Your task to perform on an android device: Open settings Image 0: 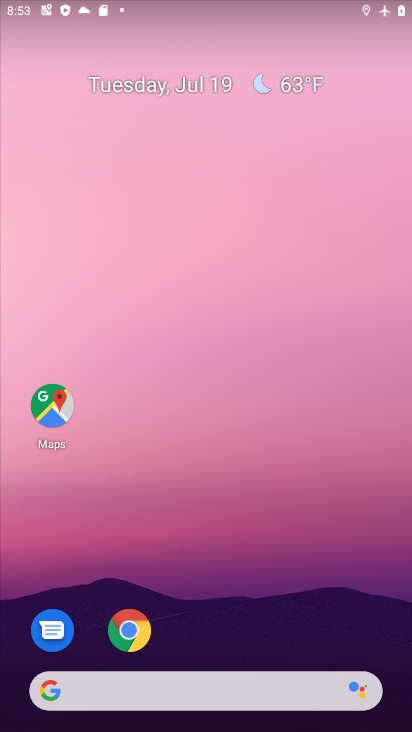
Step 0: drag from (186, 693) to (330, 93)
Your task to perform on an android device: Open settings Image 1: 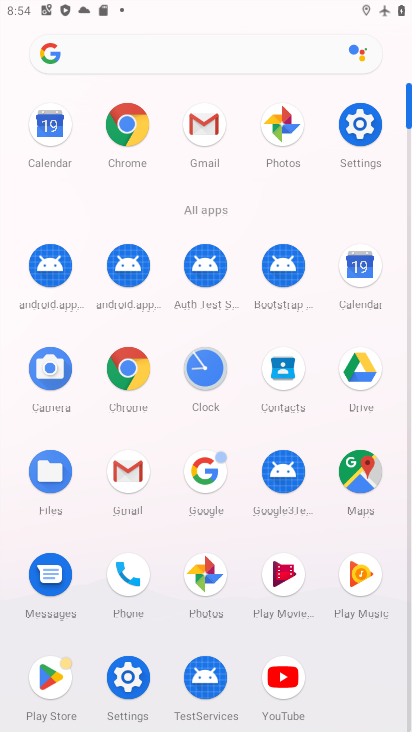
Step 1: click (361, 123)
Your task to perform on an android device: Open settings Image 2: 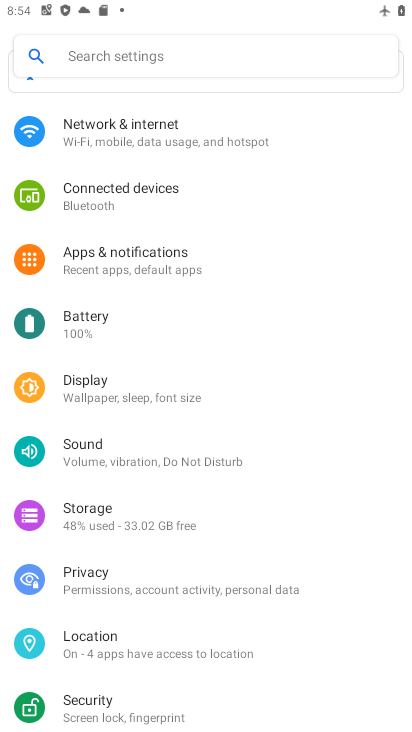
Step 2: task complete